Your task to perform on an android device: turn off picture-in-picture Image 0: 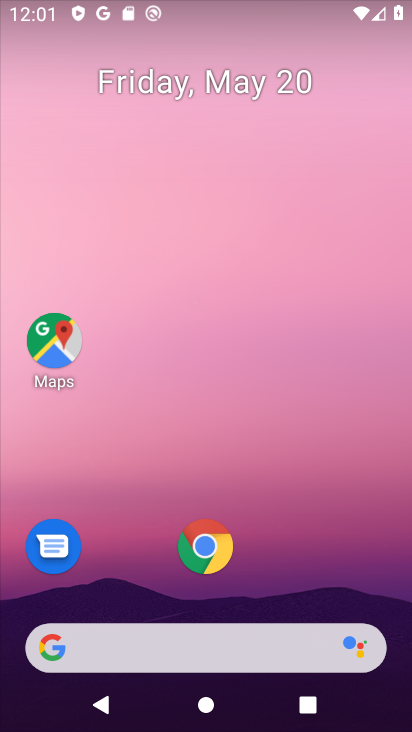
Step 0: click (208, 554)
Your task to perform on an android device: turn off picture-in-picture Image 1: 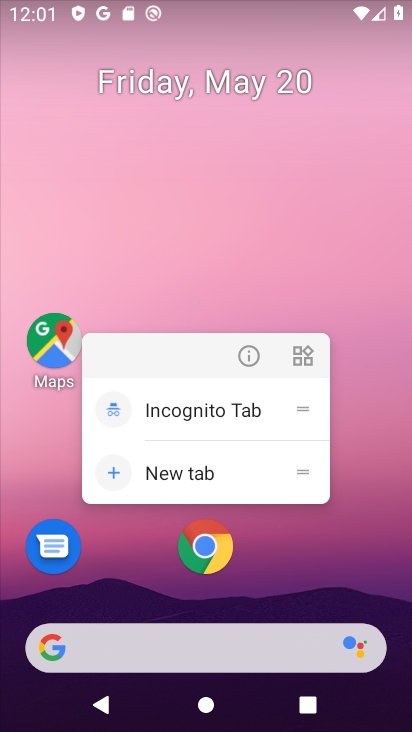
Step 1: click (245, 351)
Your task to perform on an android device: turn off picture-in-picture Image 2: 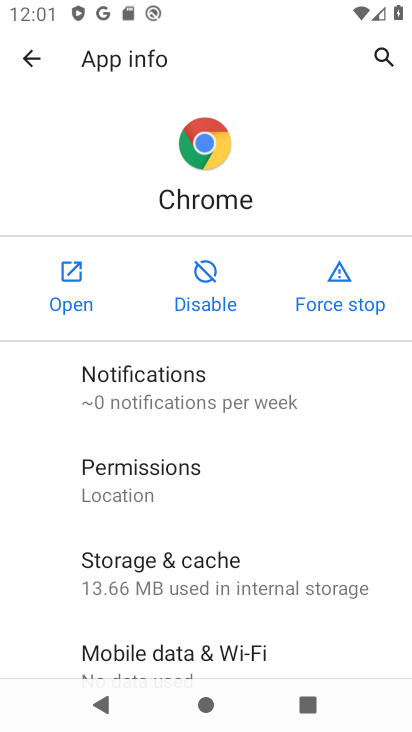
Step 2: drag from (298, 500) to (317, 4)
Your task to perform on an android device: turn off picture-in-picture Image 3: 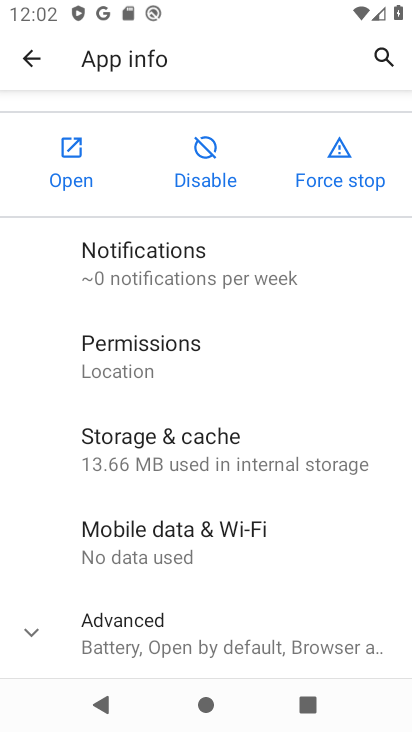
Step 3: click (194, 635)
Your task to perform on an android device: turn off picture-in-picture Image 4: 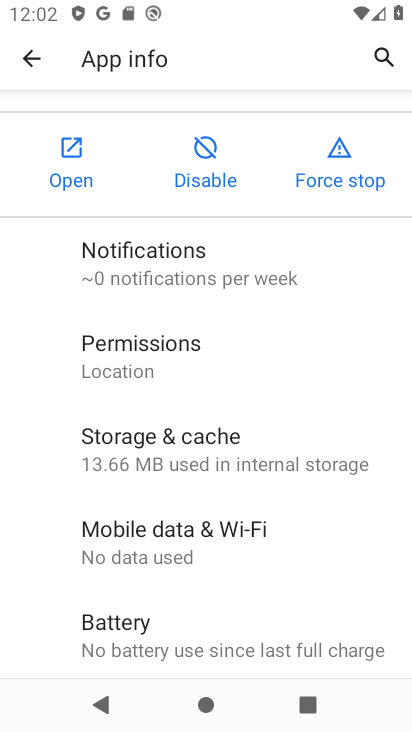
Step 4: drag from (219, 608) to (262, 148)
Your task to perform on an android device: turn off picture-in-picture Image 5: 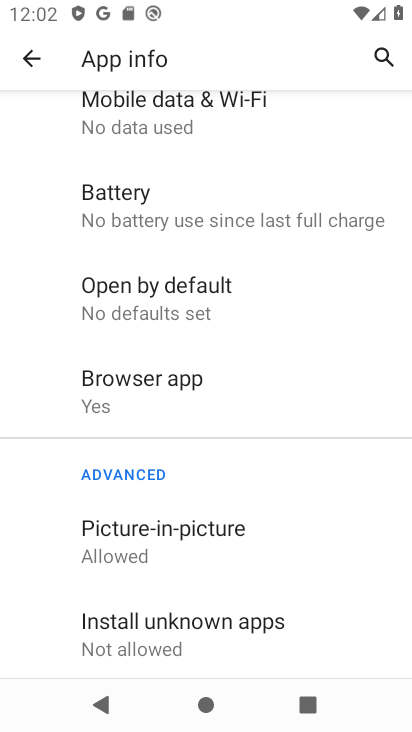
Step 5: drag from (293, 570) to (314, 254)
Your task to perform on an android device: turn off picture-in-picture Image 6: 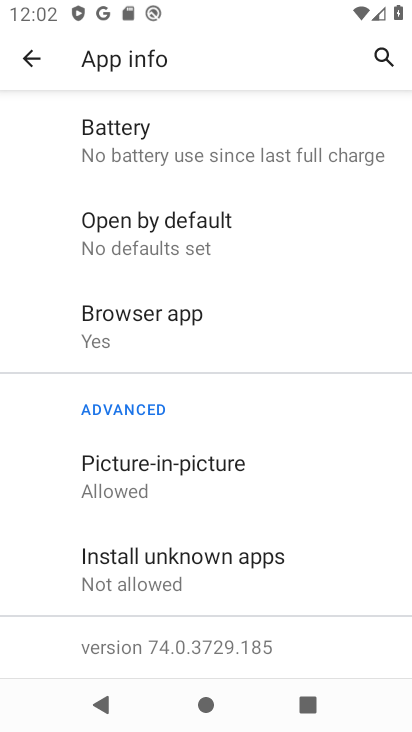
Step 6: click (201, 457)
Your task to perform on an android device: turn off picture-in-picture Image 7: 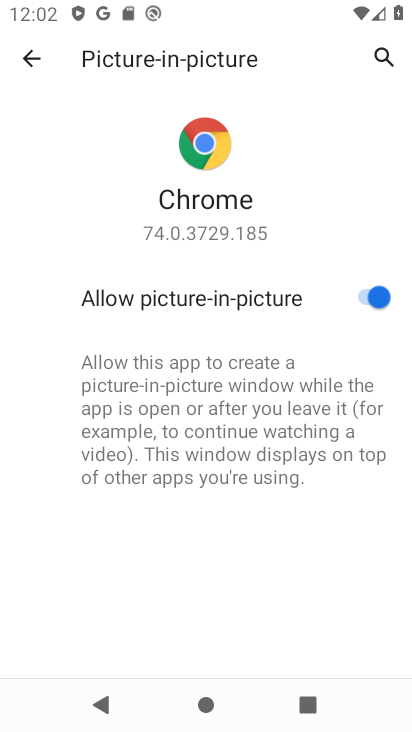
Step 7: task complete